Your task to perform on an android device: check google app version Image 0: 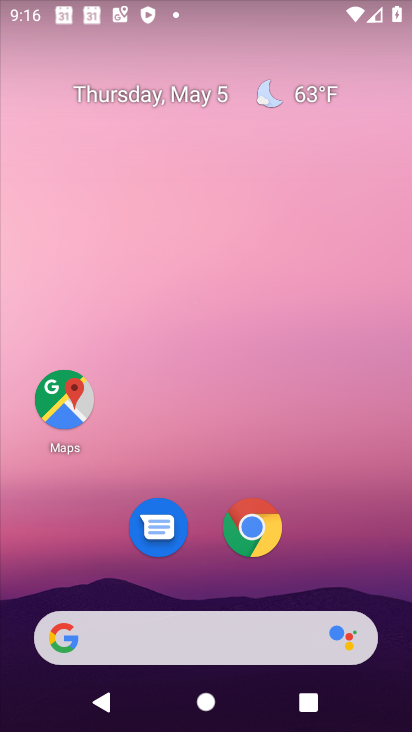
Step 0: drag from (233, 707) to (187, 37)
Your task to perform on an android device: check google app version Image 1: 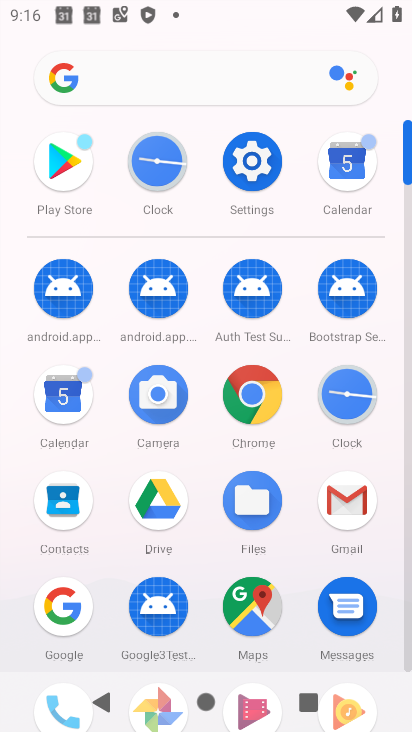
Step 1: click (64, 614)
Your task to perform on an android device: check google app version Image 2: 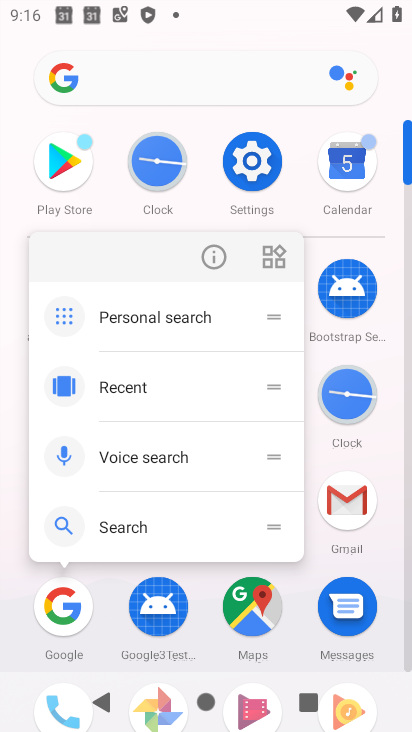
Step 2: click (209, 257)
Your task to perform on an android device: check google app version Image 3: 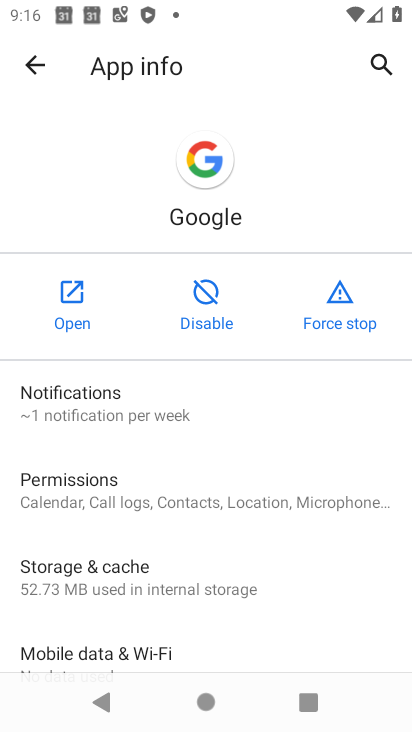
Step 3: drag from (294, 612) to (233, 20)
Your task to perform on an android device: check google app version Image 4: 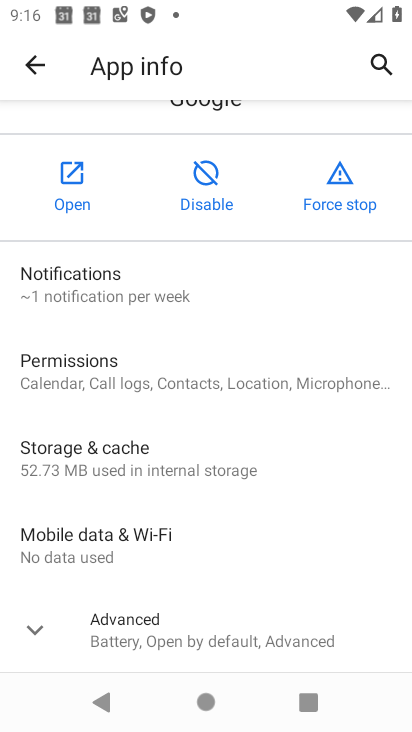
Step 4: click (141, 639)
Your task to perform on an android device: check google app version Image 5: 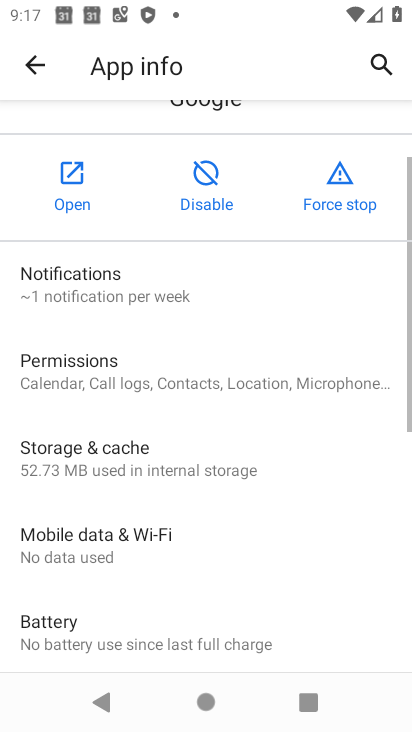
Step 5: task complete